Your task to perform on an android device: empty trash in the gmail app Image 0: 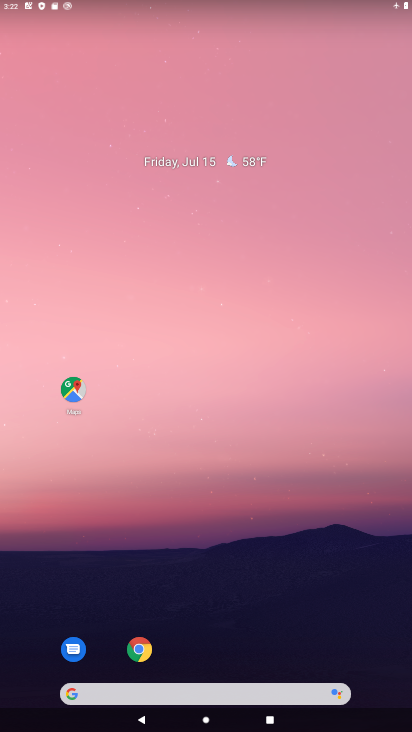
Step 0: drag from (236, 655) to (204, 170)
Your task to perform on an android device: empty trash in the gmail app Image 1: 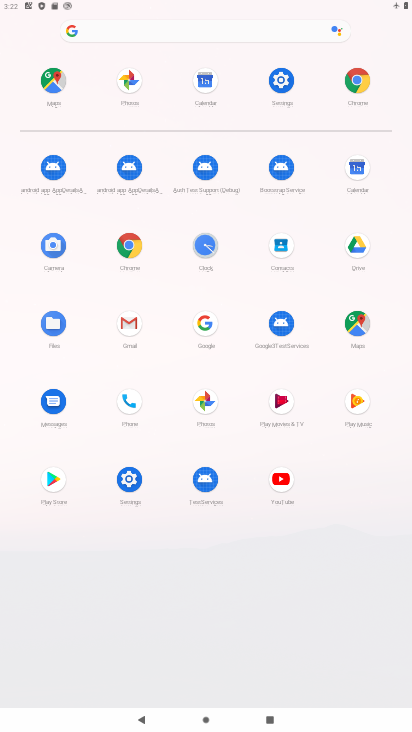
Step 1: click (125, 327)
Your task to perform on an android device: empty trash in the gmail app Image 2: 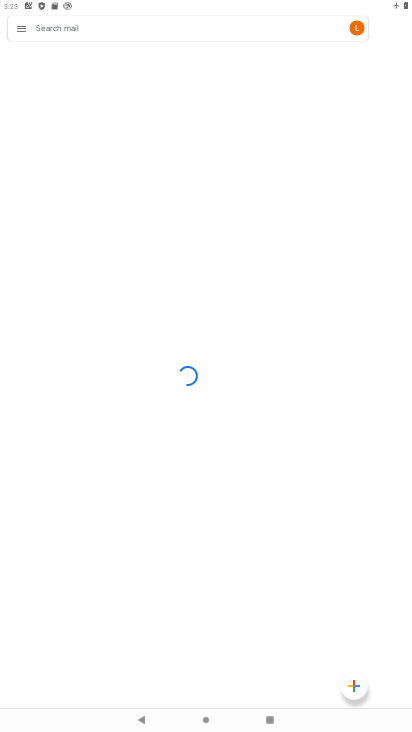
Step 2: click (23, 26)
Your task to perform on an android device: empty trash in the gmail app Image 3: 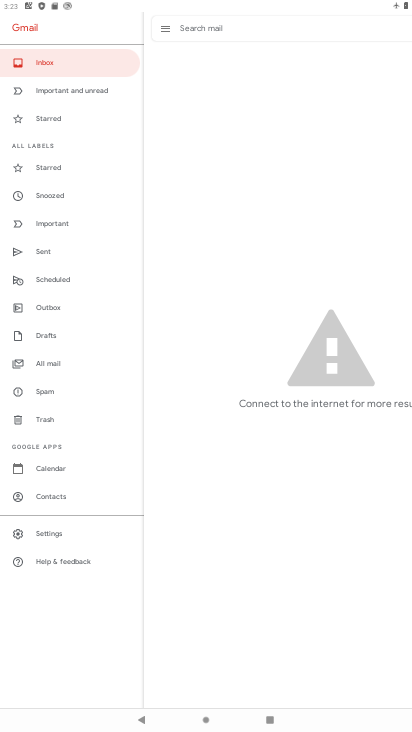
Step 3: click (47, 418)
Your task to perform on an android device: empty trash in the gmail app Image 4: 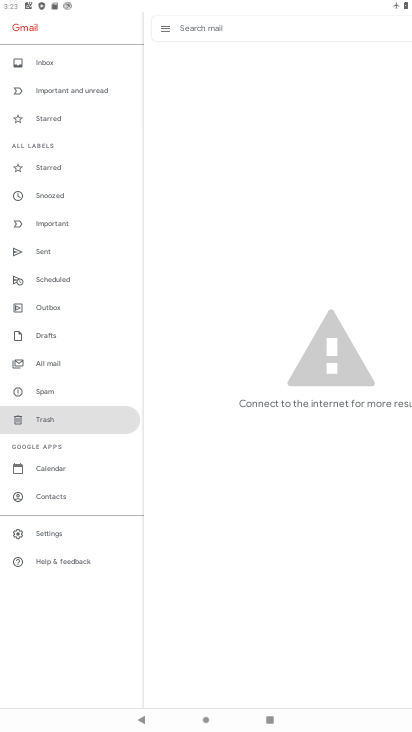
Step 4: task complete